Your task to perform on an android device: Open accessibility settings Image 0: 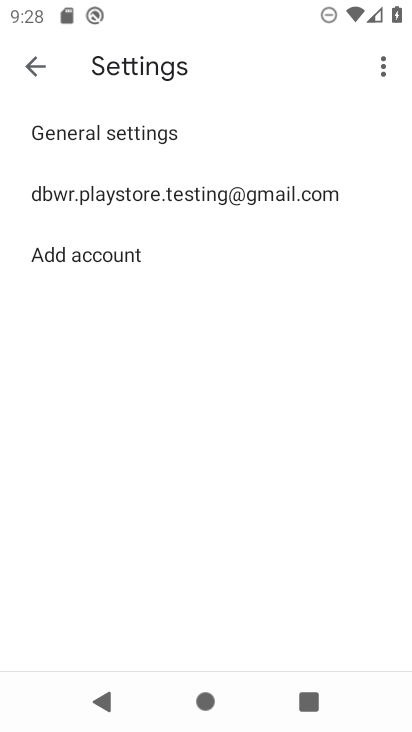
Step 0: press home button
Your task to perform on an android device: Open accessibility settings Image 1: 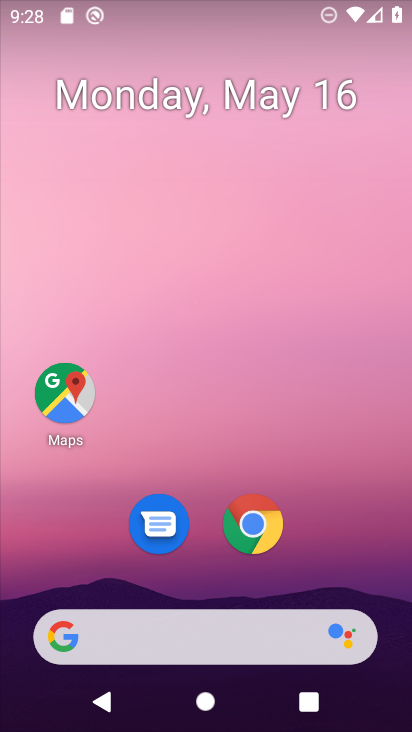
Step 1: drag from (320, 547) to (364, 55)
Your task to perform on an android device: Open accessibility settings Image 2: 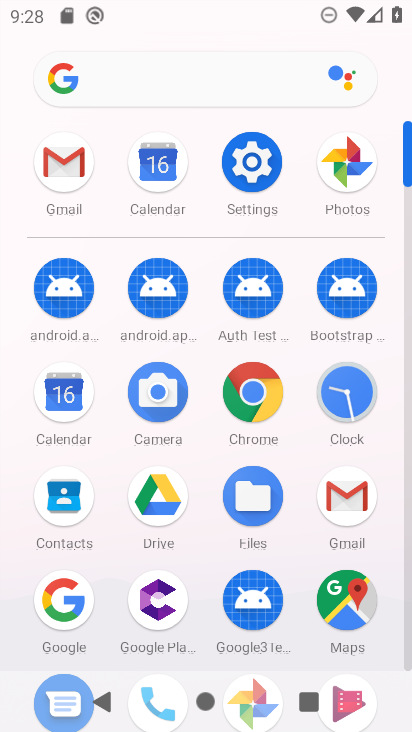
Step 2: click (258, 165)
Your task to perform on an android device: Open accessibility settings Image 3: 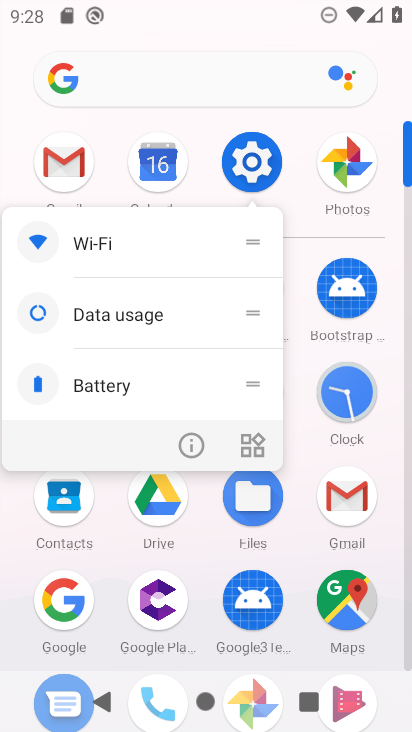
Step 3: click (258, 161)
Your task to perform on an android device: Open accessibility settings Image 4: 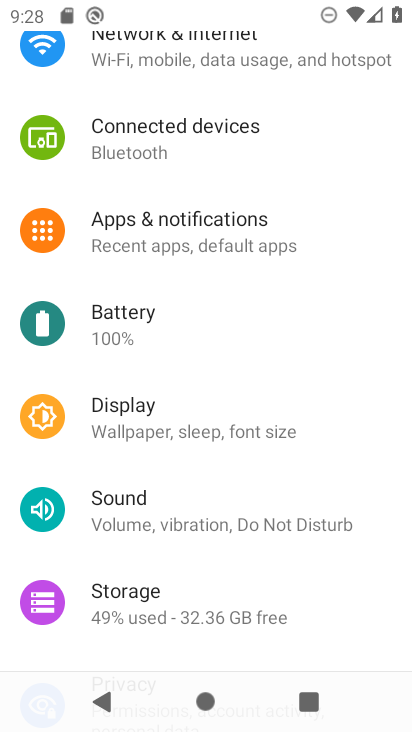
Step 4: drag from (247, 489) to (256, 143)
Your task to perform on an android device: Open accessibility settings Image 5: 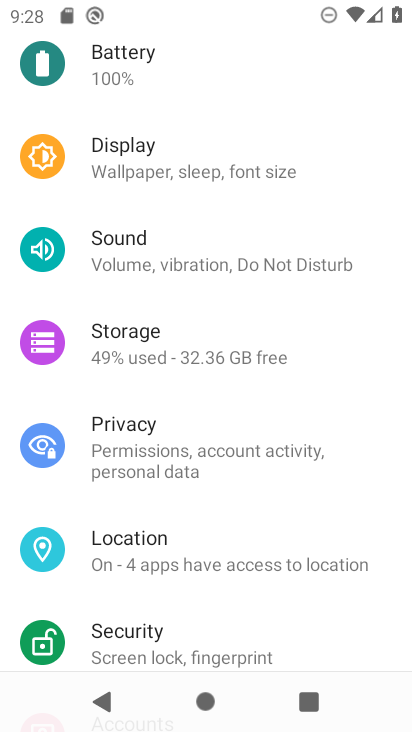
Step 5: drag from (227, 437) to (219, 148)
Your task to perform on an android device: Open accessibility settings Image 6: 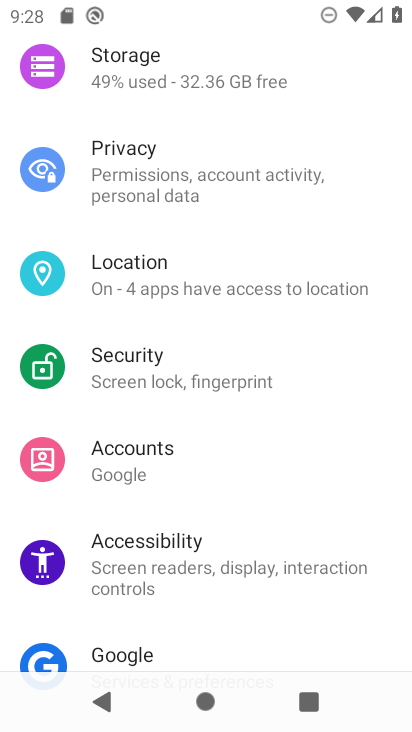
Step 6: click (197, 558)
Your task to perform on an android device: Open accessibility settings Image 7: 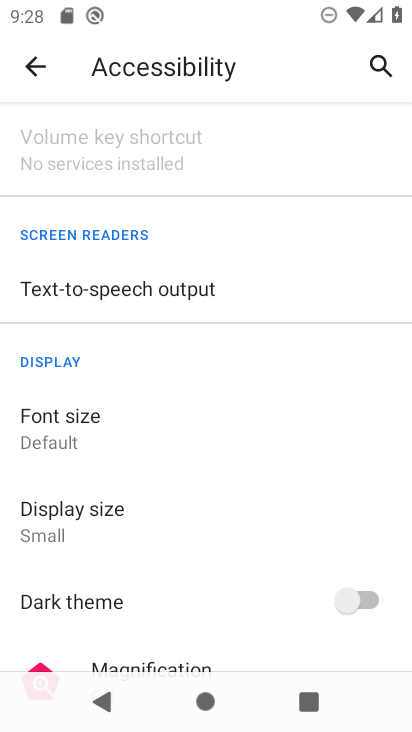
Step 7: task complete